Your task to perform on an android device: turn pop-ups off in chrome Image 0: 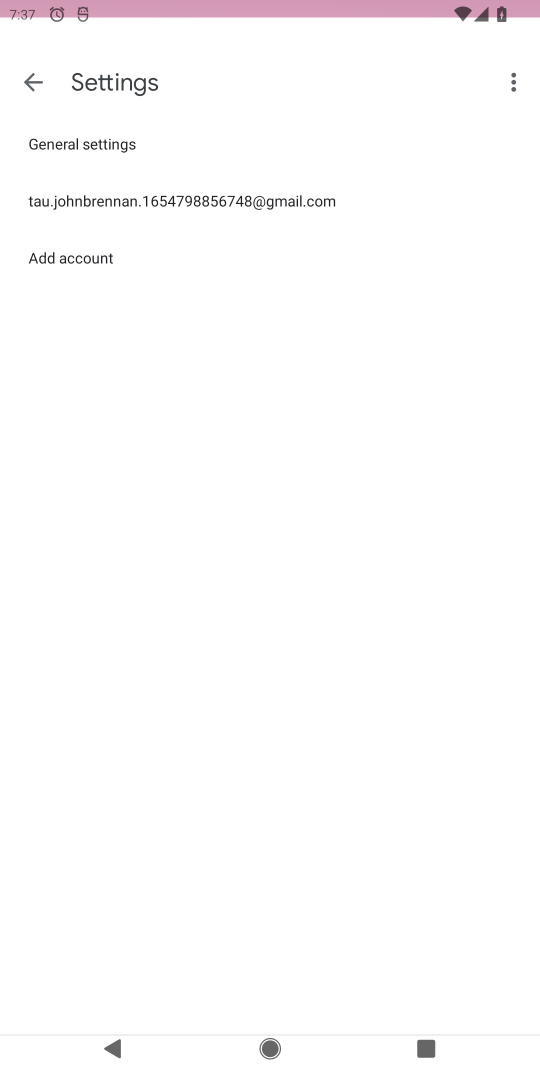
Step 0: press home button
Your task to perform on an android device: turn pop-ups off in chrome Image 1: 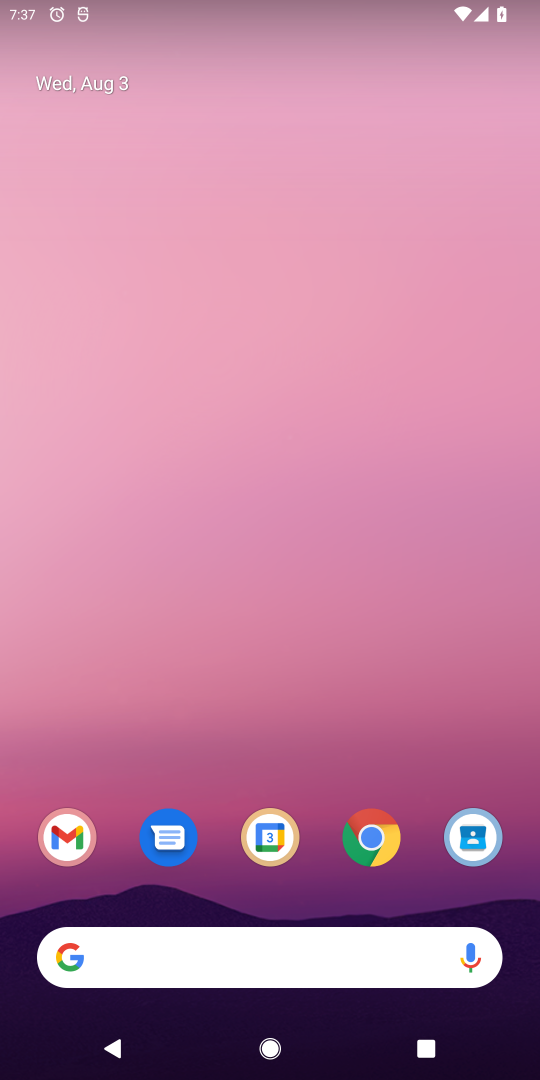
Step 1: click (373, 840)
Your task to perform on an android device: turn pop-ups off in chrome Image 2: 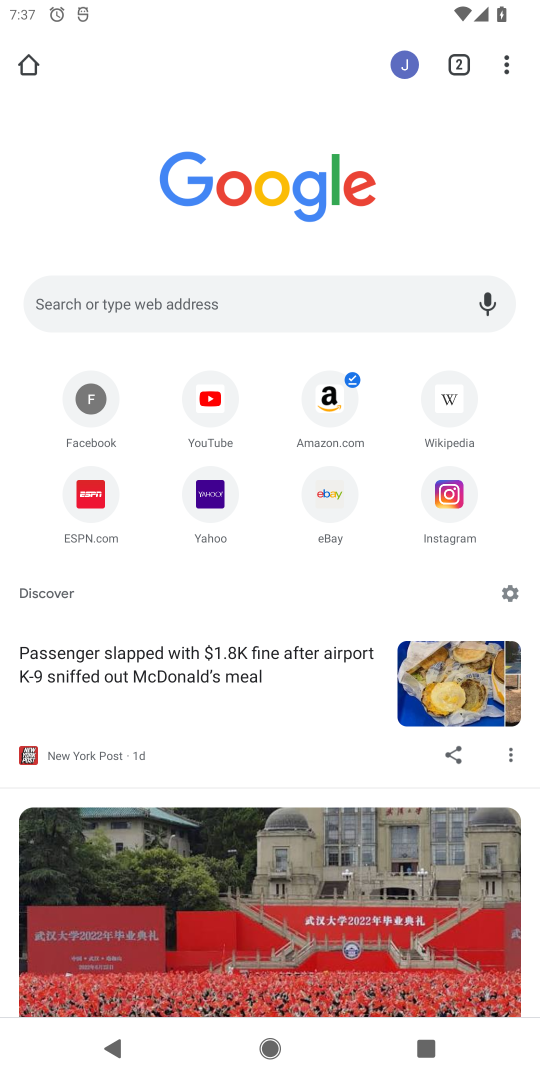
Step 2: drag from (503, 64) to (306, 632)
Your task to perform on an android device: turn pop-ups off in chrome Image 3: 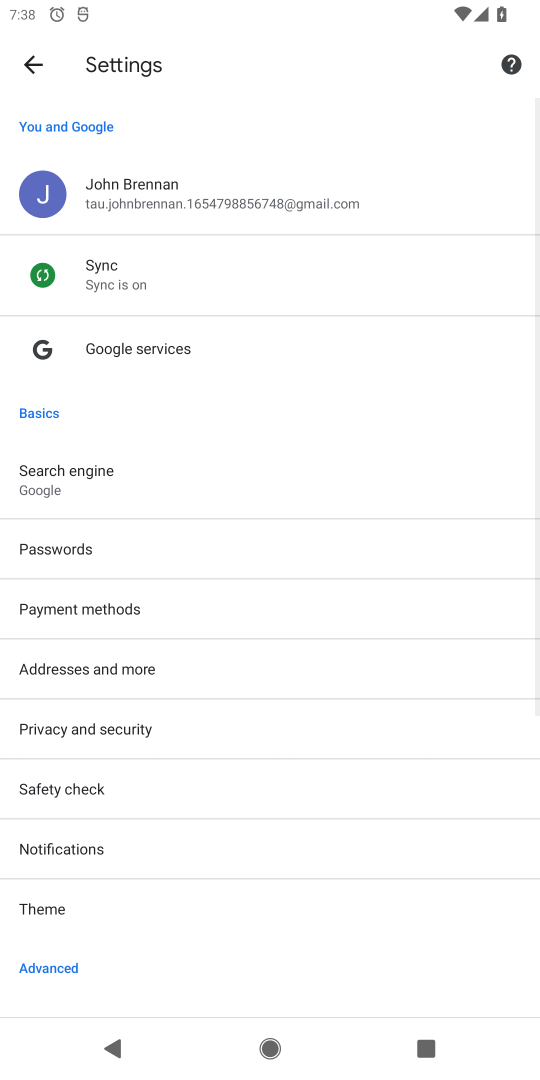
Step 3: drag from (259, 937) to (308, 381)
Your task to perform on an android device: turn pop-ups off in chrome Image 4: 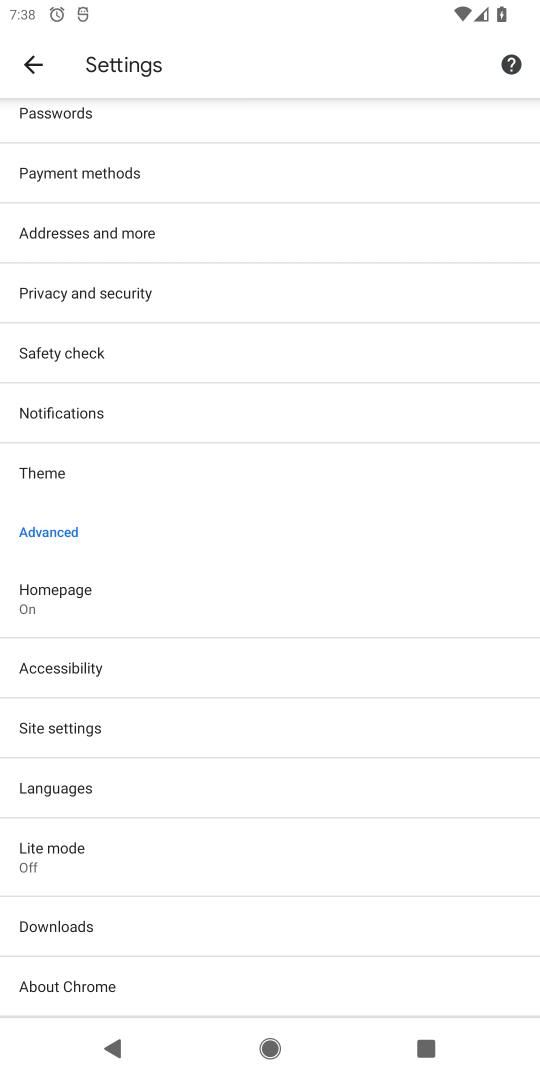
Step 4: click (89, 733)
Your task to perform on an android device: turn pop-ups off in chrome Image 5: 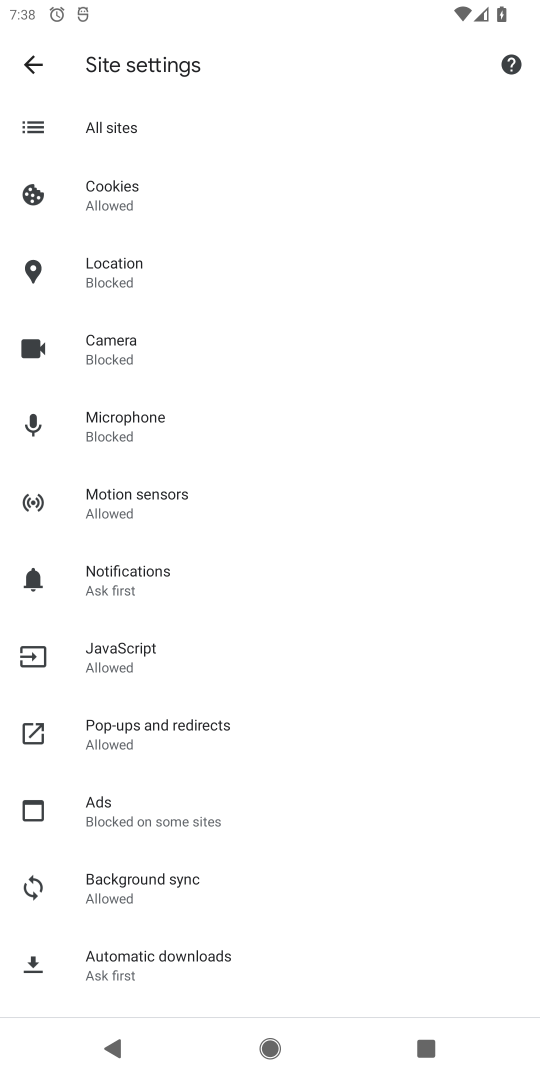
Step 5: click (163, 734)
Your task to perform on an android device: turn pop-ups off in chrome Image 6: 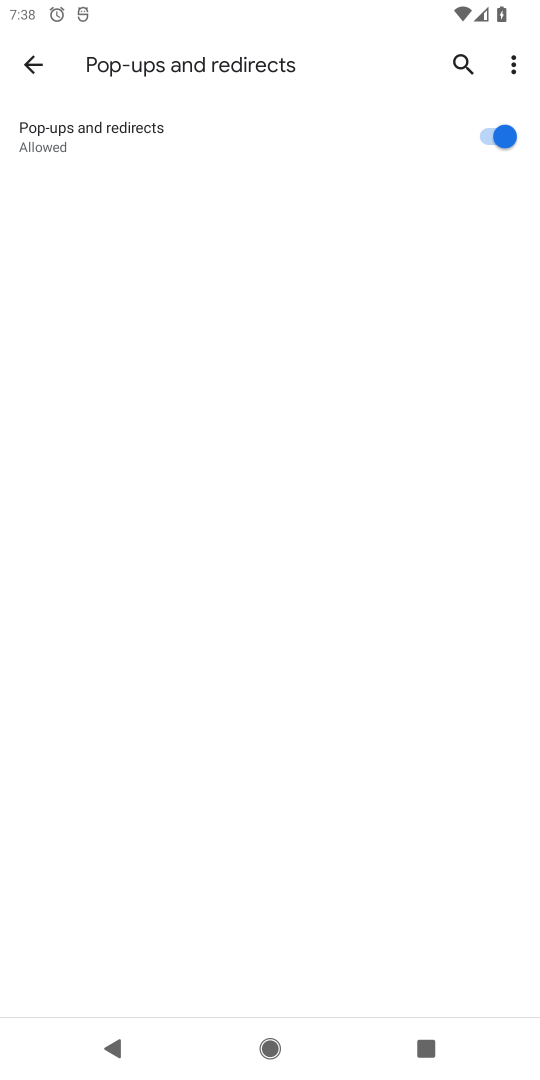
Step 6: click (500, 140)
Your task to perform on an android device: turn pop-ups off in chrome Image 7: 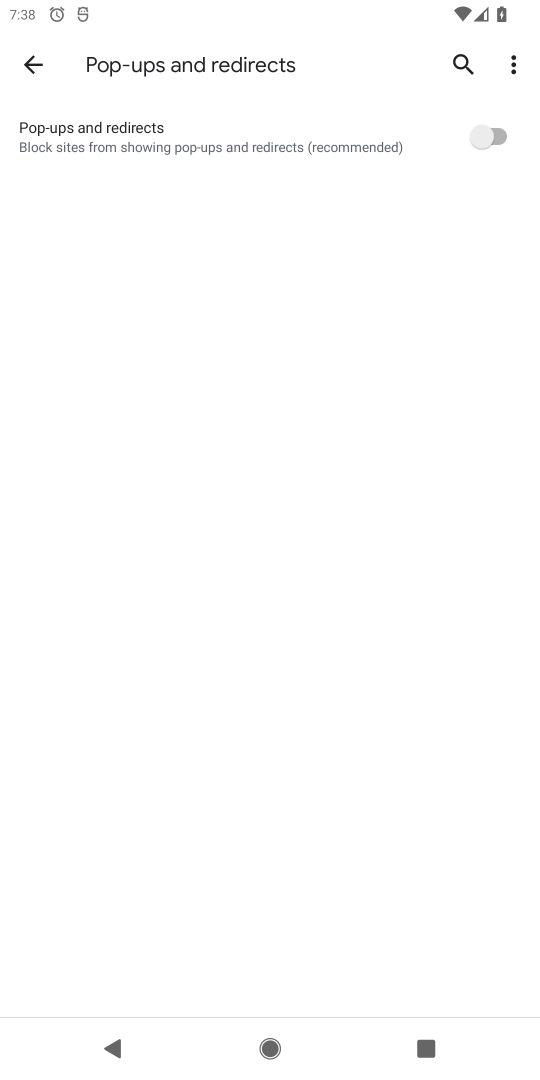
Step 7: task complete